Your task to perform on an android device: delete a single message in the gmail app Image 0: 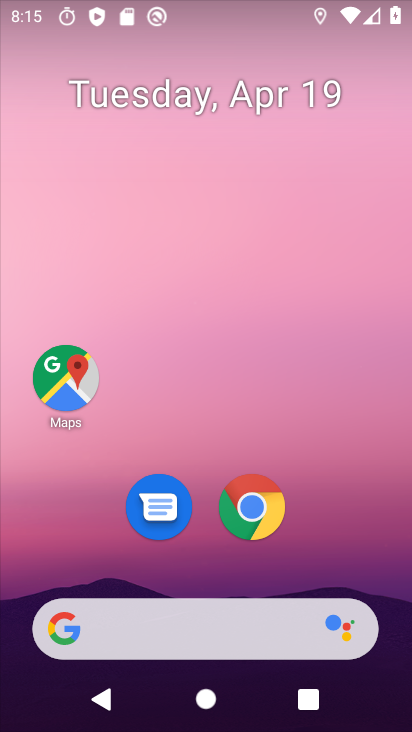
Step 0: drag from (320, 539) to (251, 109)
Your task to perform on an android device: delete a single message in the gmail app Image 1: 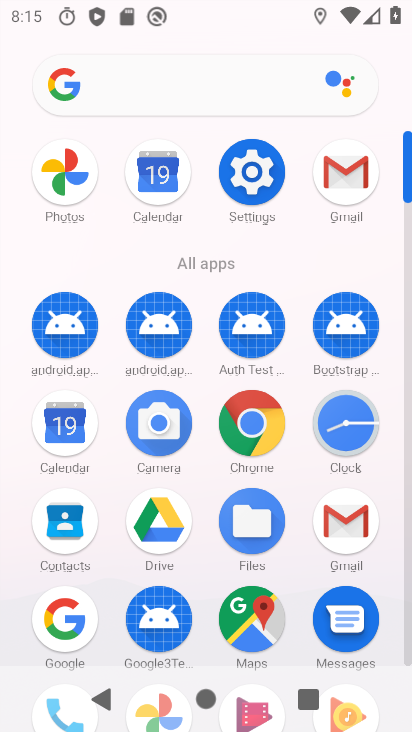
Step 1: click (343, 182)
Your task to perform on an android device: delete a single message in the gmail app Image 2: 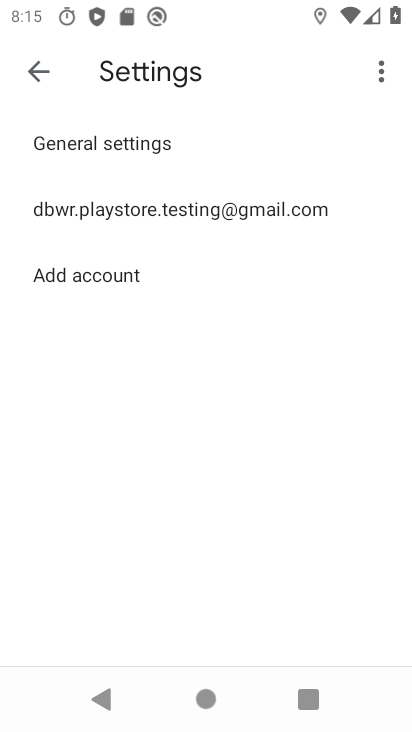
Step 2: click (39, 70)
Your task to perform on an android device: delete a single message in the gmail app Image 3: 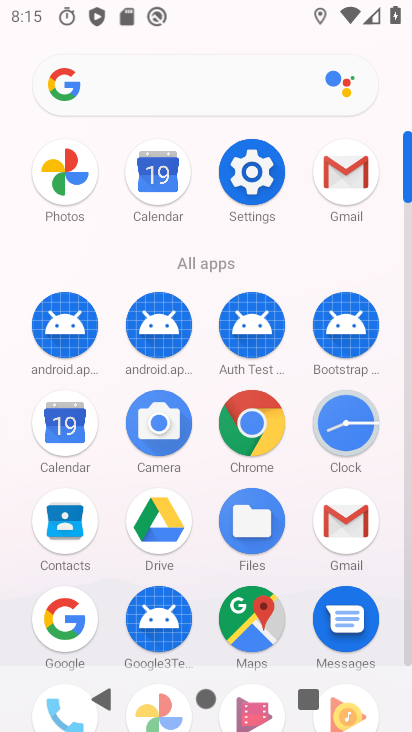
Step 3: click (358, 166)
Your task to perform on an android device: delete a single message in the gmail app Image 4: 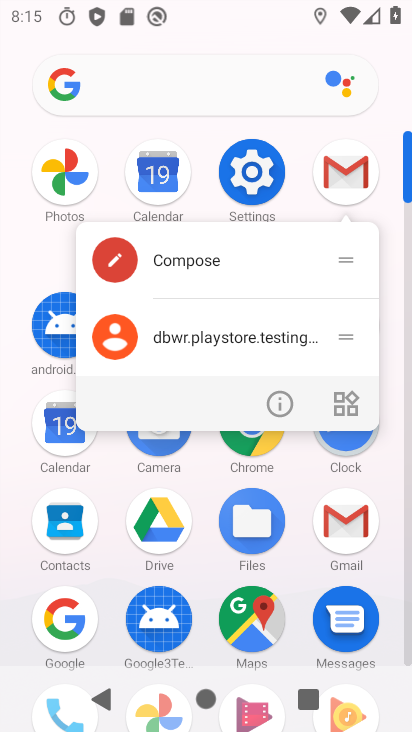
Step 4: click (358, 166)
Your task to perform on an android device: delete a single message in the gmail app Image 5: 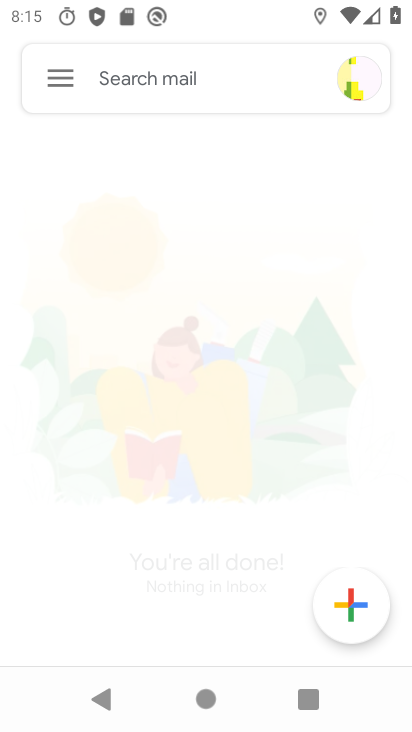
Step 5: click (245, 319)
Your task to perform on an android device: delete a single message in the gmail app Image 6: 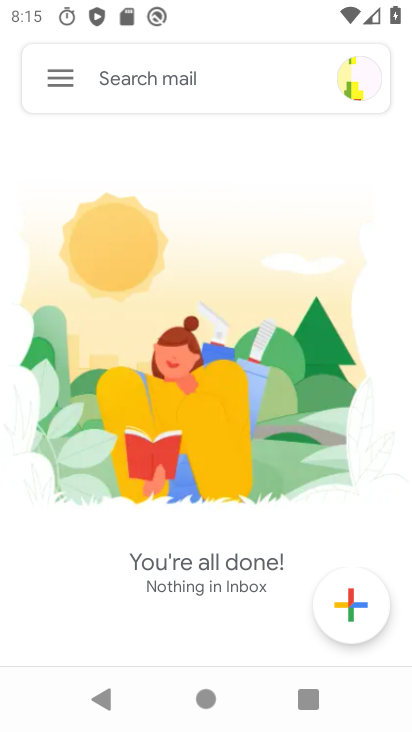
Step 6: click (51, 78)
Your task to perform on an android device: delete a single message in the gmail app Image 7: 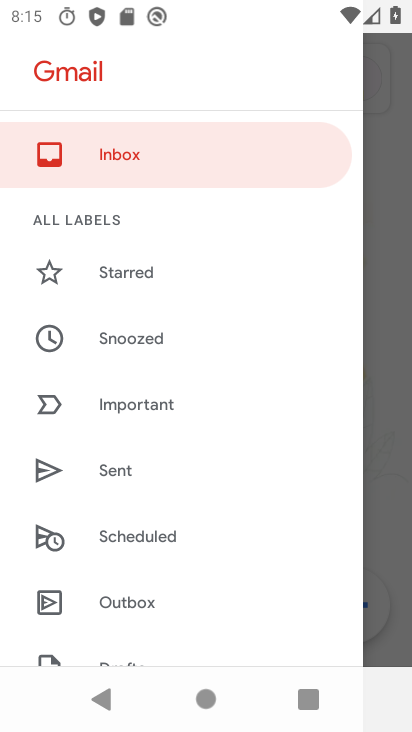
Step 7: drag from (140, 644) to (144, 235)
Your task to perform on an android device: delete a single message in the gmail app Image 8: 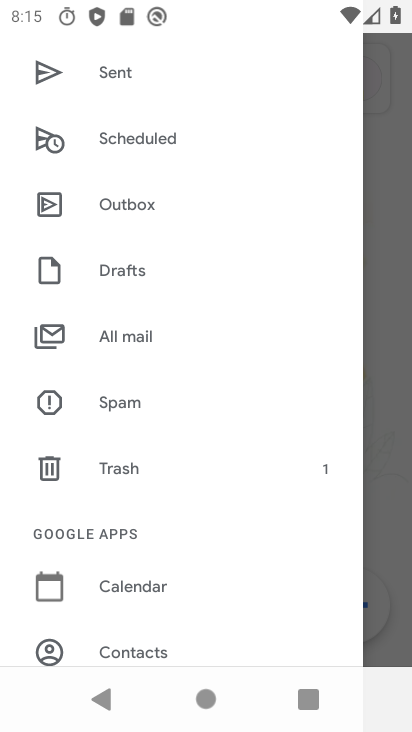
Step 8: click (126, 472)
Your task to perform on an android device: delete a single message in the gmail app Image 9: 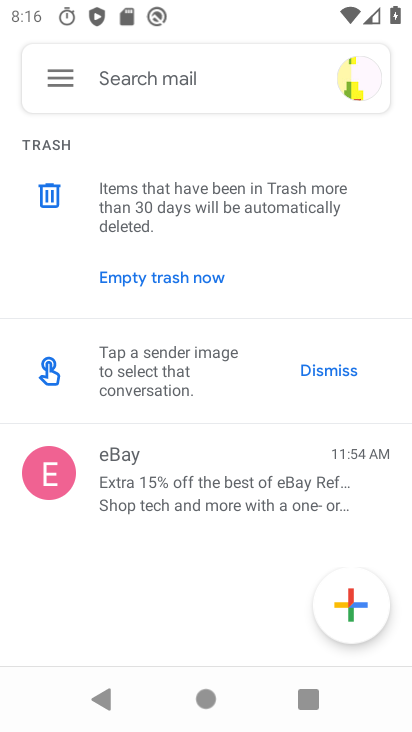
Step 9: click (185, 493)
Your task to perform on an android device: delete a single message in the gmail app Image 10: 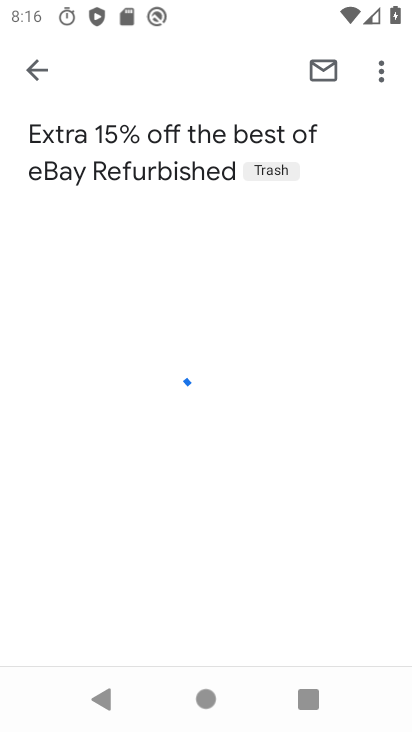
Step 10: click (380, 66)
Your task to perform on an android device: delete a single message in the gmail app Image 11: 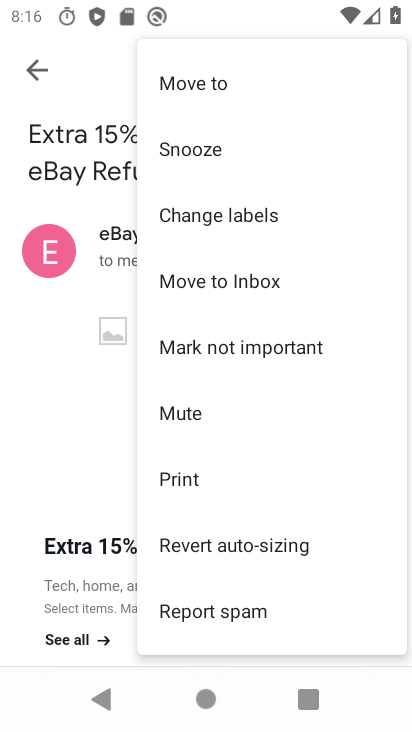
Step 11: click (86, 425)
Your task to perform on an android device: delete a single message in the gmail app Image 12: 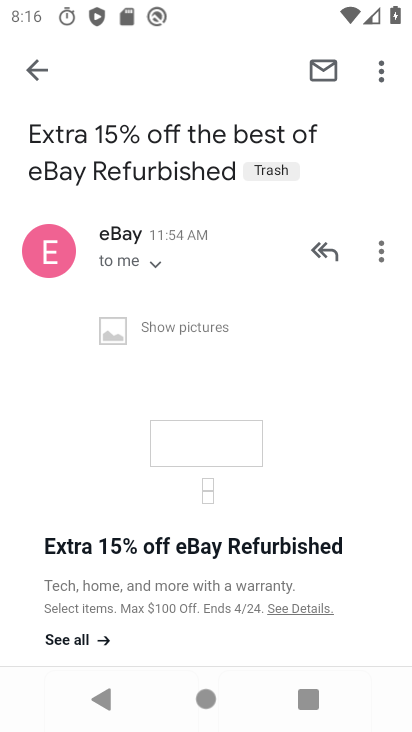
Step 12: click (380, 249)
Your task to perform on an android device: delete a single message in the gmail app Image 13: 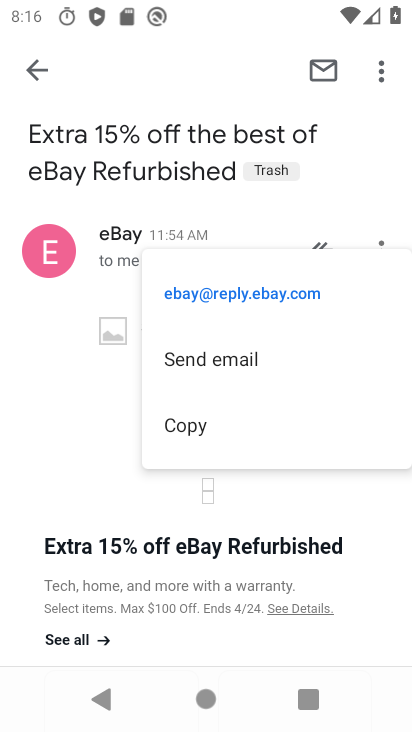
Step 13: click (102, 284)
Your task to perform on an android device: delete a single message in the gmail app Image 14: 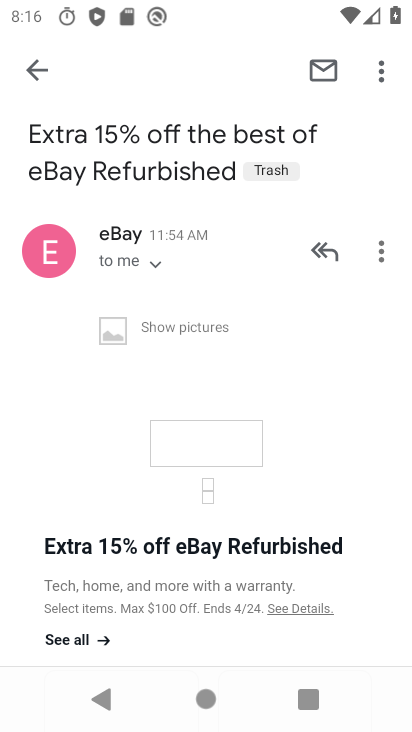
Step 14: click (39, 80)
Your task to perform on an android device: delete a single message in the gmail app Image 15: 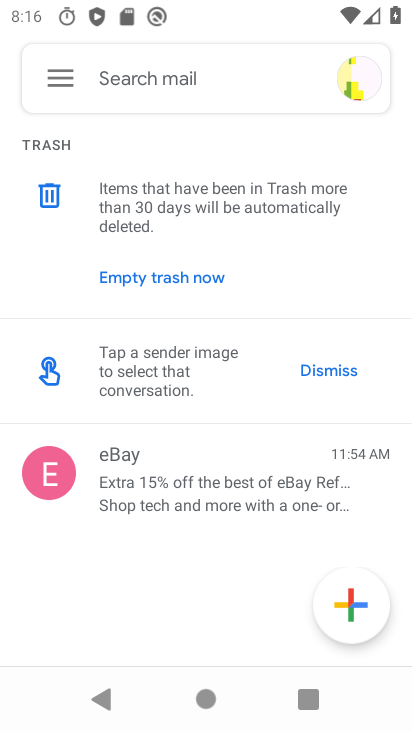
Step 15: click (57, 478)
Your task to perform on an android device: delete a single message in the gmail app Image 16: 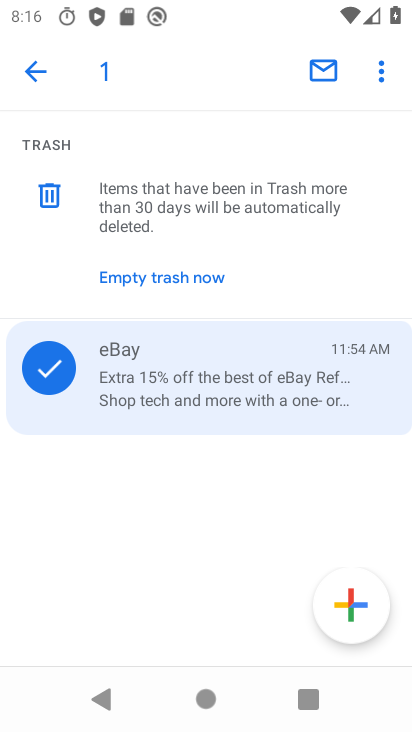
Step 16: click (381, 72)
Your task to perform on an android device: delete a single message in the gmail app Image 17: 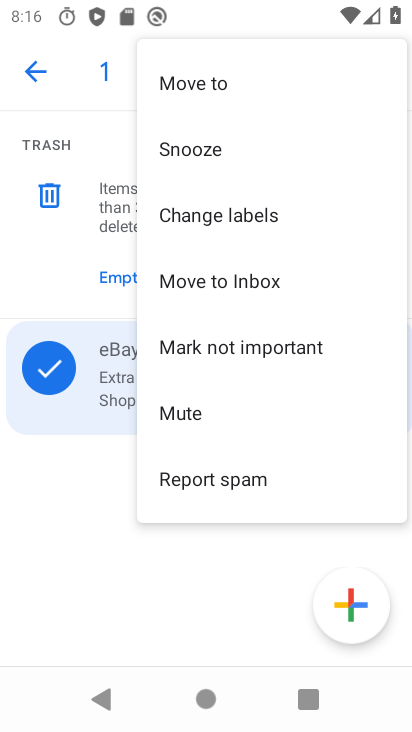
Step 17: drag from (247, 468) to (247, 128)
Your task to perform on an android device: delete a single message in the gmail app Image 18: 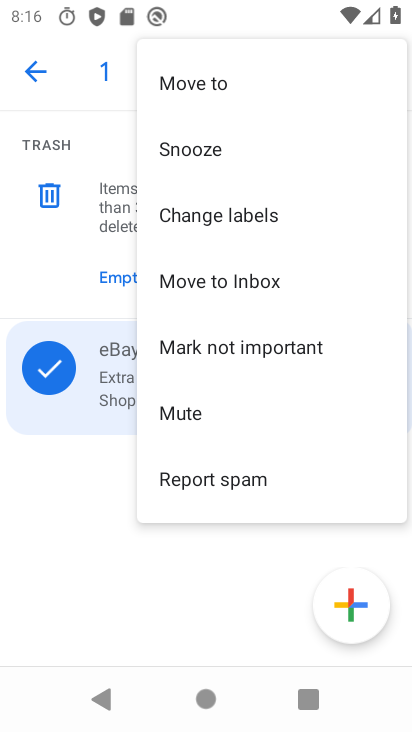
Step 18: click (92, 577)
Your task to perform on an android device: delete a single message in the gmail app Image 19: 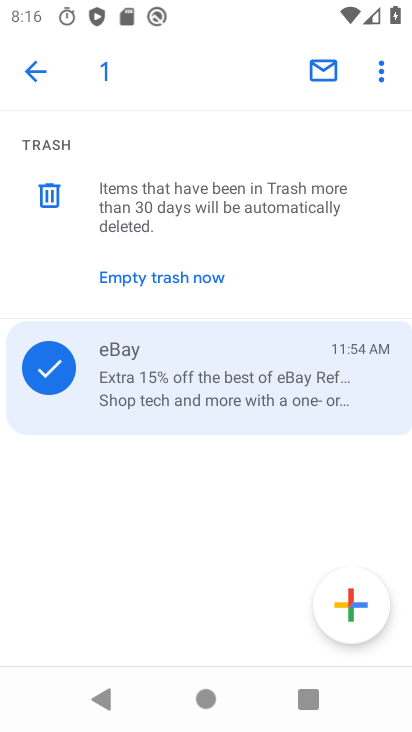
Step 19: click (34, 71)
Your task to perform on an android device: delete a single message in the gmail app Image 20: 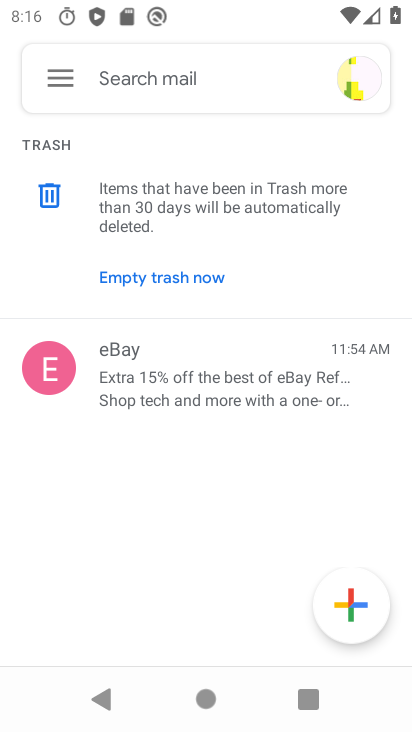
Step 20: click (55, 373)
Your task to perform on an android device: delete a single message in the gmail app Image 21: 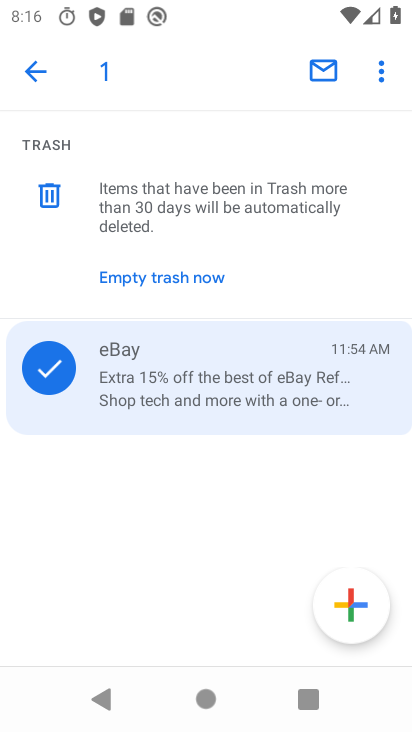
Step 21: click (52, 194)
Your task to perform on an android device: delete a single message in the gmail app Image 22: 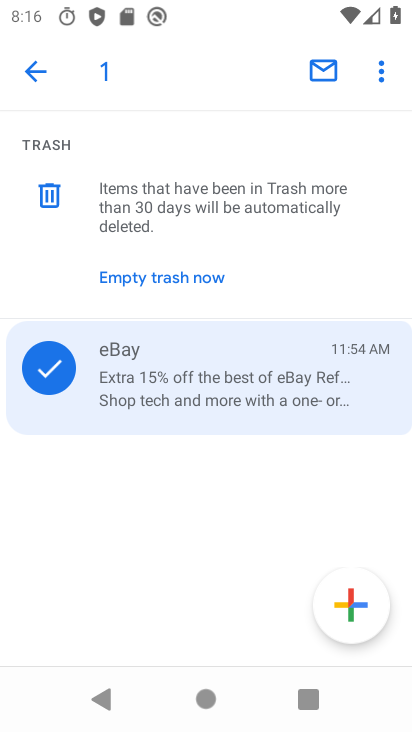
Step 22: click (45, 197)
Your task to perform on an android device: delete a single message in the gmail app Image 23: 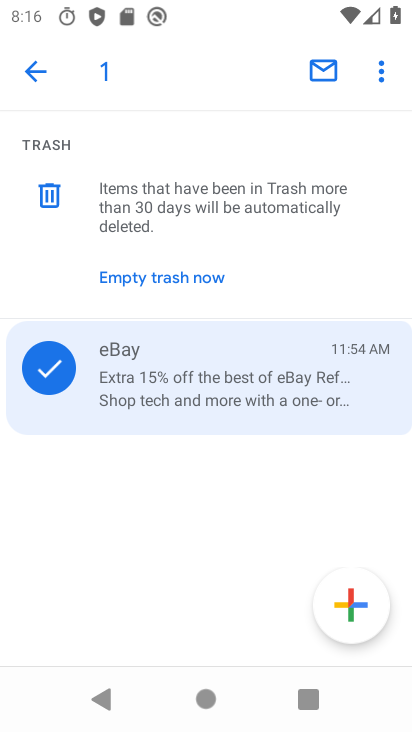
Step 23: click (47, 195)
Your task to perform on an android device: delete a single message in the gmail app Image 24: 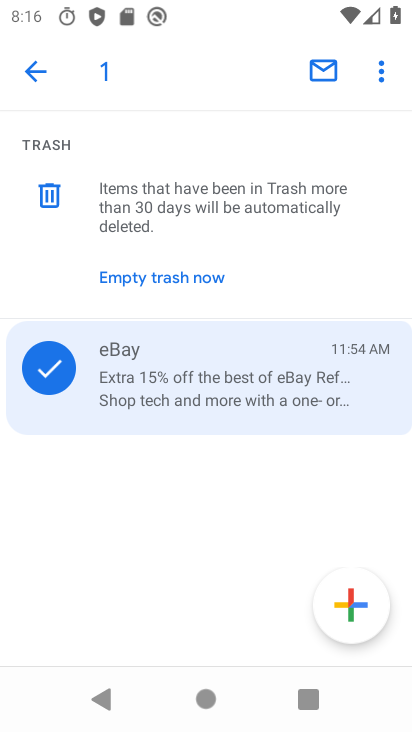
Step 24: click (47, 195)
Your task to perform on an android device: delete a single message in the gmail app Image 25: 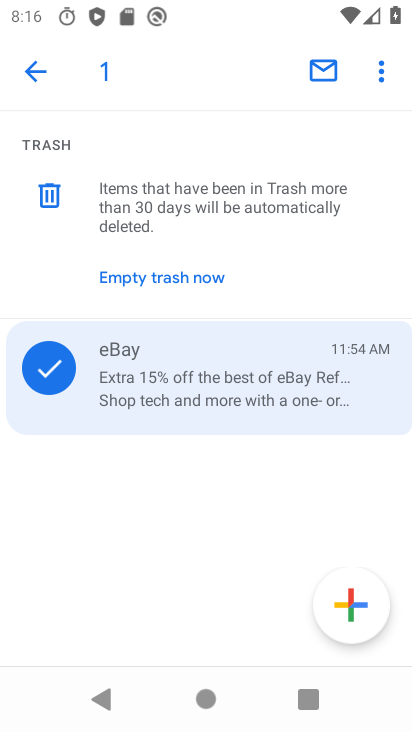
Step 25: click (47, 195)
Your task to perform on an android device: delete a single message in the gmail app Image 26: 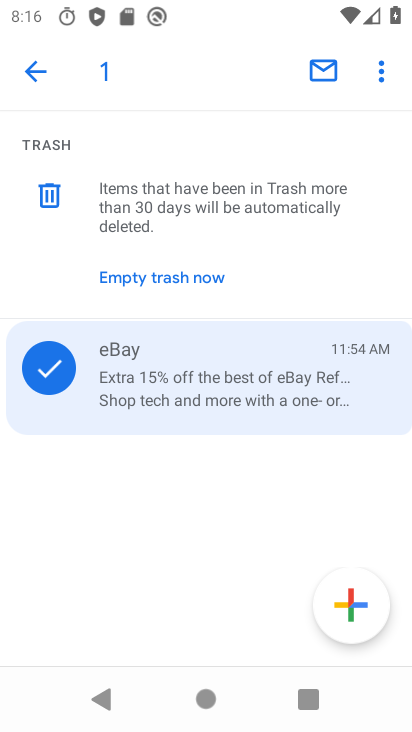
Step 26: click (47, 195)
Your task to perform on an android device: delete a single message in the gmail app Image 27: 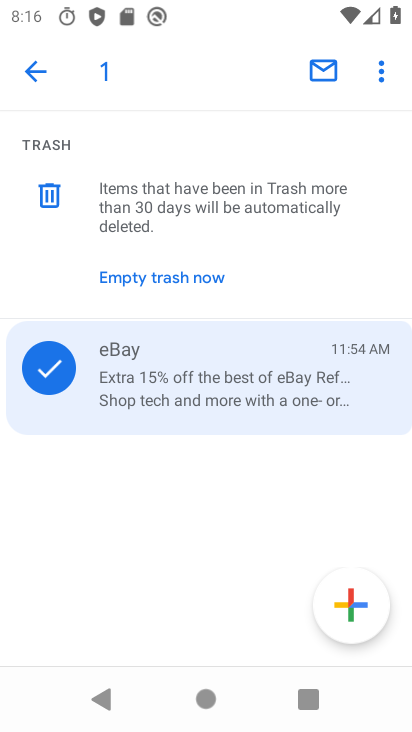
Step 27: click (168, 279)
Your task to perform on an android device: delete a single message in the gmail app Image 28: 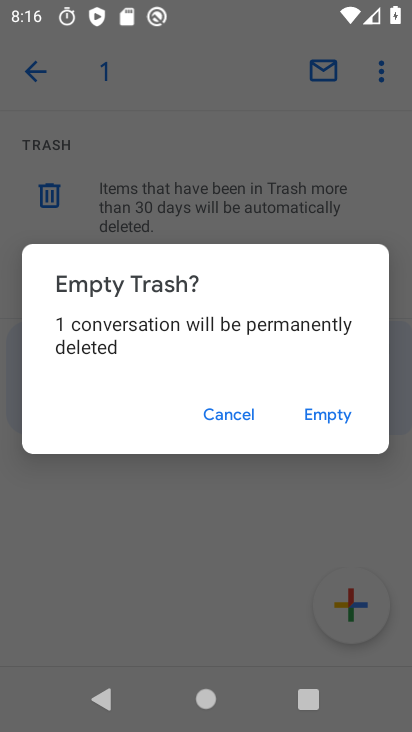
Step 28: click (333, 418)
Your task to perform on an android device: delete a single message in the gmail app Image 29: 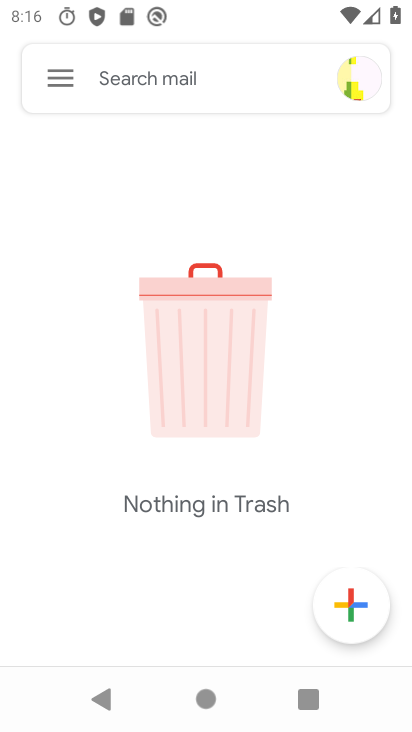
Step 29: task complete